Your task to perform on an android device: toggle data saver in the chrome app Image 0: 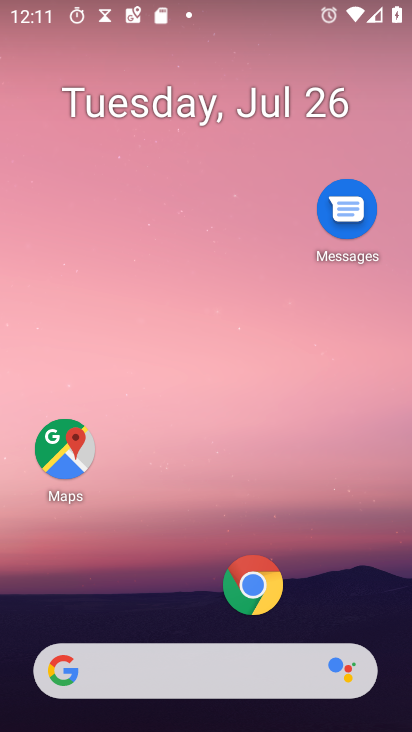
Step 0: press home button
Your task to perform on an android device: toggle data saver in the chrome app Image 1: 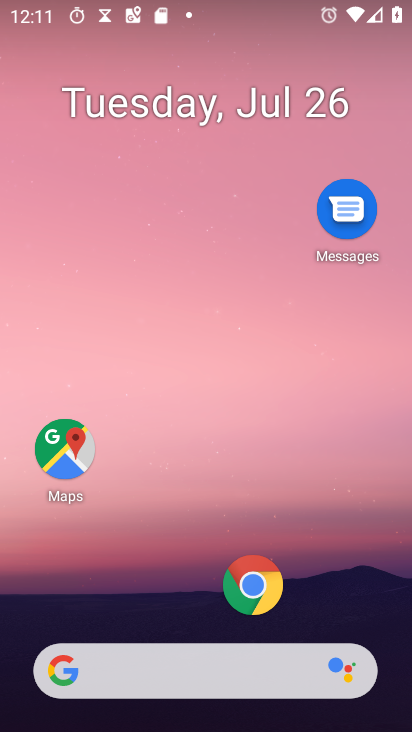
Step 1: click (265, 585)
Your task to perform on an android device: toggle data saver in the chrome app Image 2: 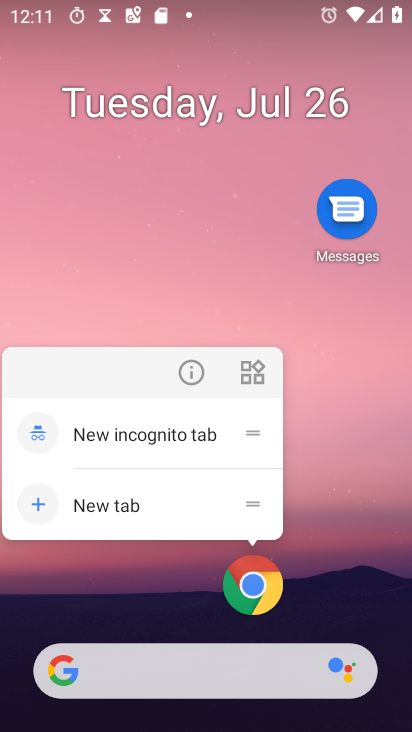
Step 2: click (253, 583)
Your task to perform on an android device: toggle data saver in the chrome app Image 3: 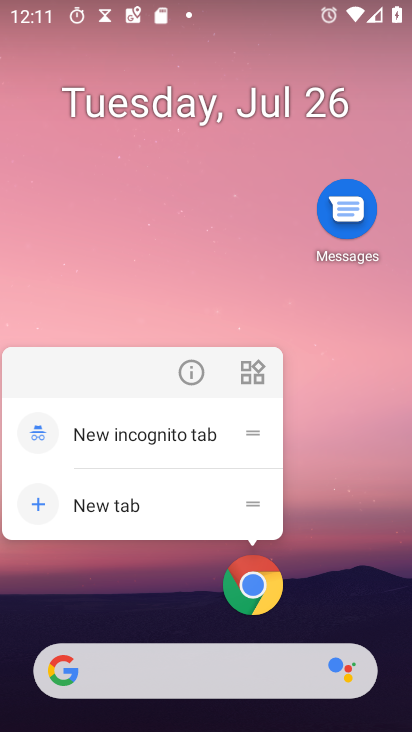
Step 3: click (256, 597)
Your task to perform on an android device: toggle data saver in the chrome app Image 4: 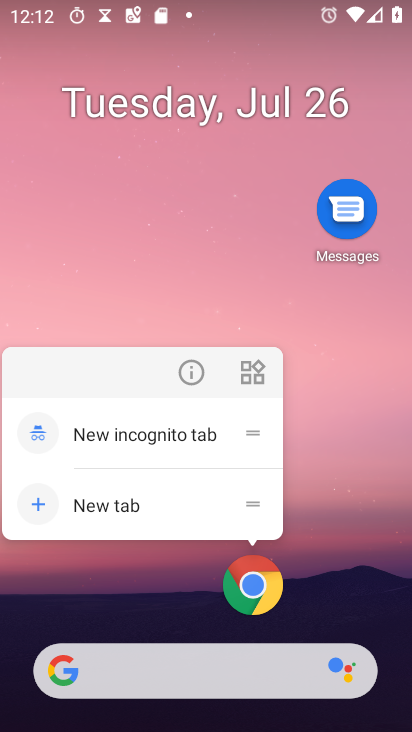
Step 4: click (255, 595)
Your task to perform on an android device: toggle data saver in the chrome app Image 5: 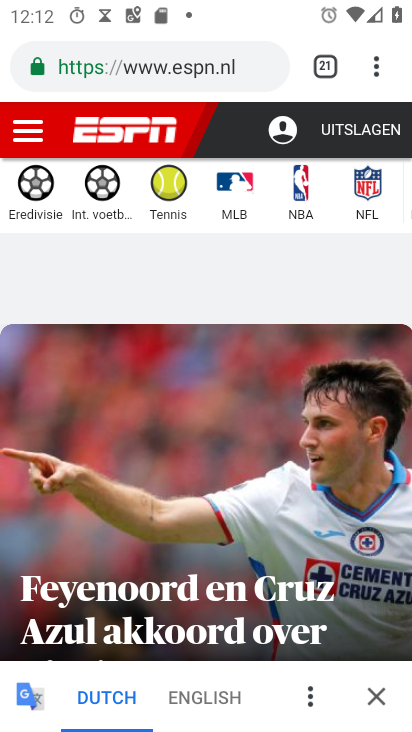
Step 5: drag from (376, 65) to (232, 589)
Your task to perform on an android device: toggle data saver in the chrome app Image 6: 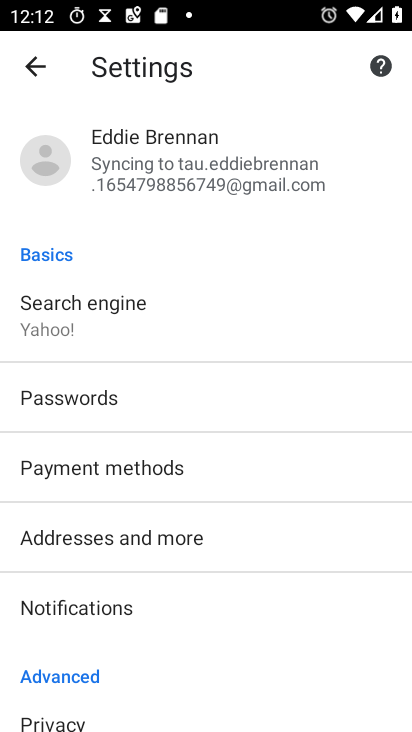
Step 6: drag from (210, 618) to (306, 210)
Your task to perform on an android device: toggle data saver in the chrome app Image 7: 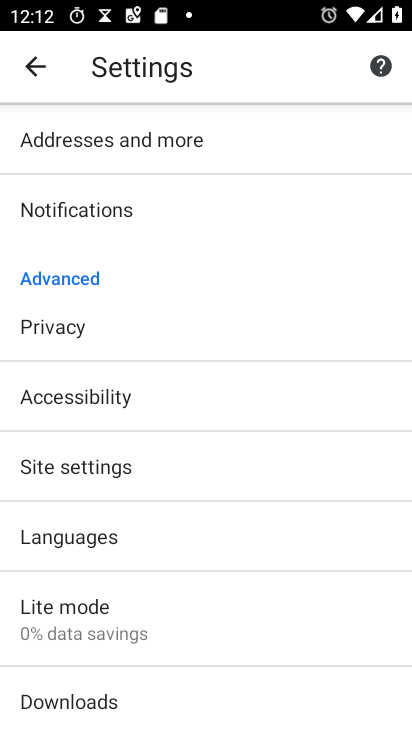
Step 7: click (112, 609)
Your task to perform on an android device: toggle data saver in the chrome app Image 8: 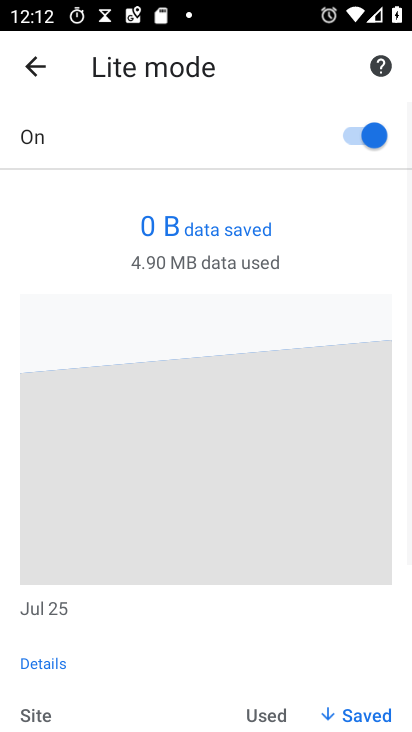
Step 8: click (352, 138)
Your task to perform on an android device: toggle data saver in the chrome app Image 9: 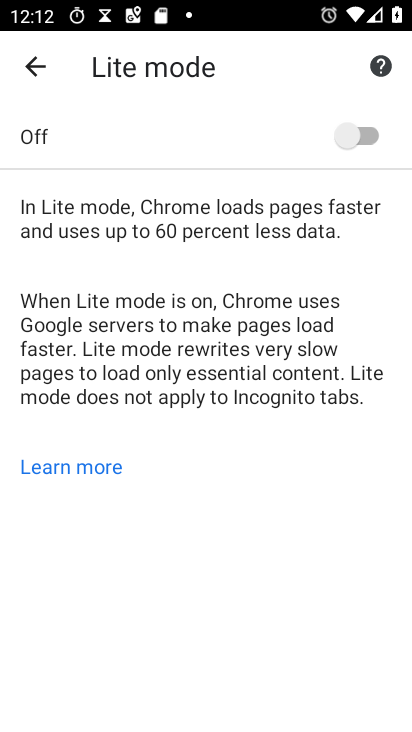
Step 9: task complete